Your task to perform on an android device: check out phone information Image 0: 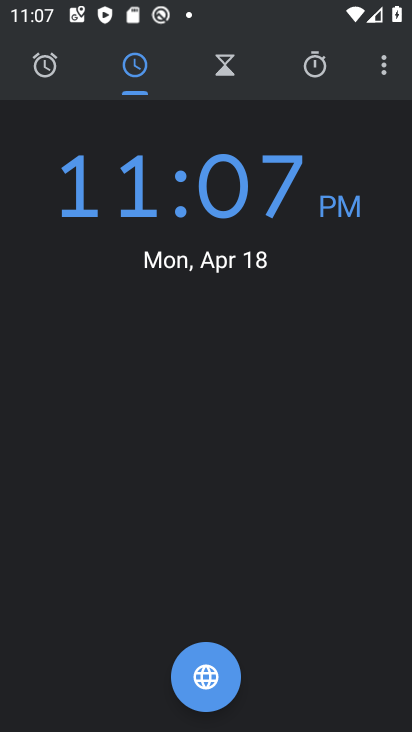
Step 0: press back button
Your task to perform on an android device: check out phone information Image 1: 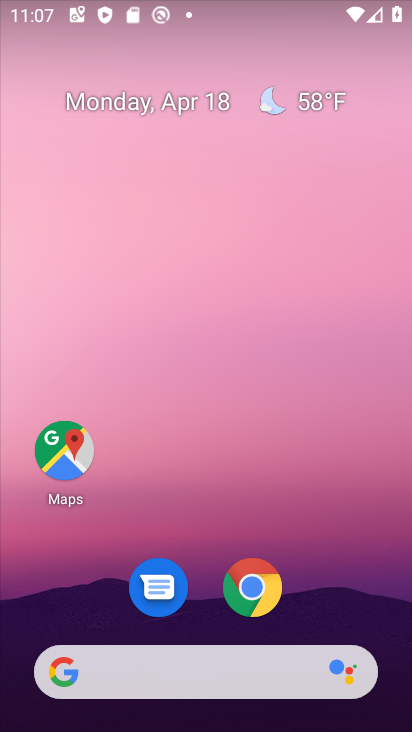
Step 1: drag from (177, 636) to (329, 90)
Your task to perform on an android device: check out phone information Image 2: 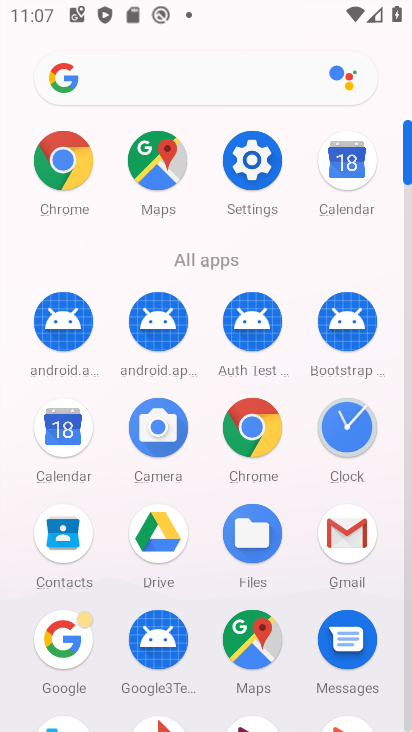
Step 2: drag from (172, 602) to (259, 273)
Your task to perform on an android device: check out phone information Image 3: 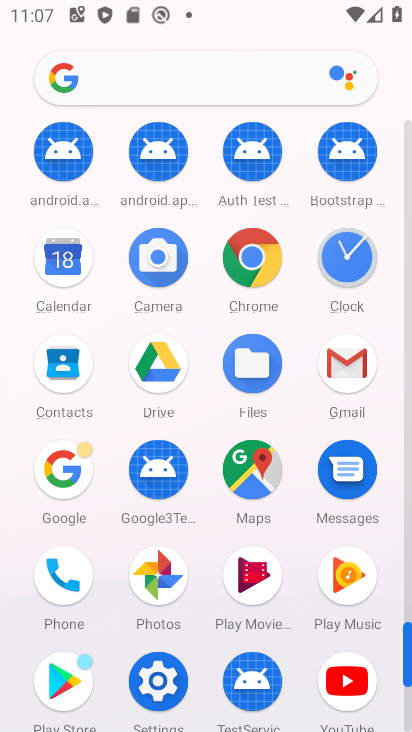
Step 3: click (161, 676)
Your task to perform on an android device: check out phone information Image 4: 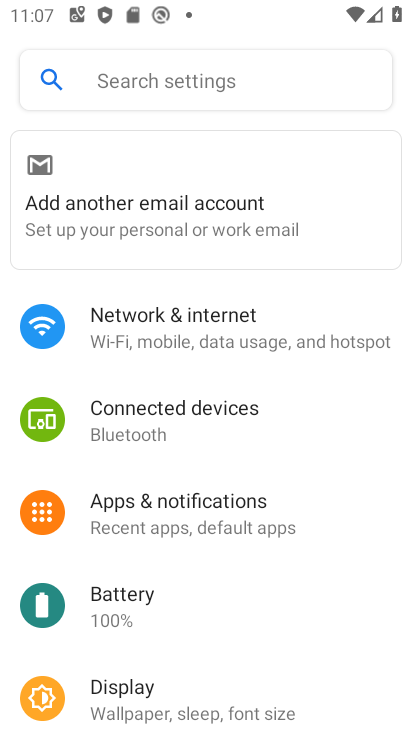
Step 4: drag from (231, 501) to (393, 73)
Your task to perform on an android device: check out phone information Image 5: 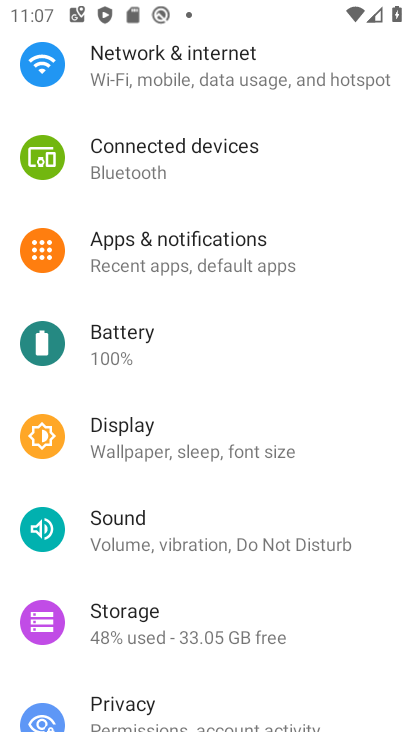
Step 5: drag from (234, 598) to (409, 94)
Your task to perform on an android device: check out phone information Image 6: 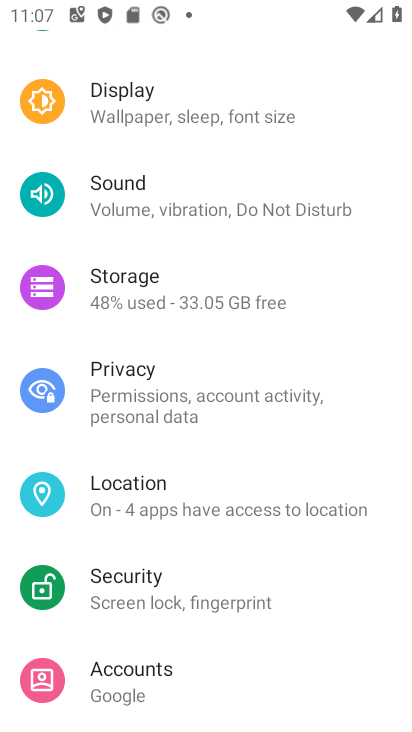
Step 6: drag from (248, 586) to (411, 53)
Your task to perform on an android device: check out phone information Image 7: 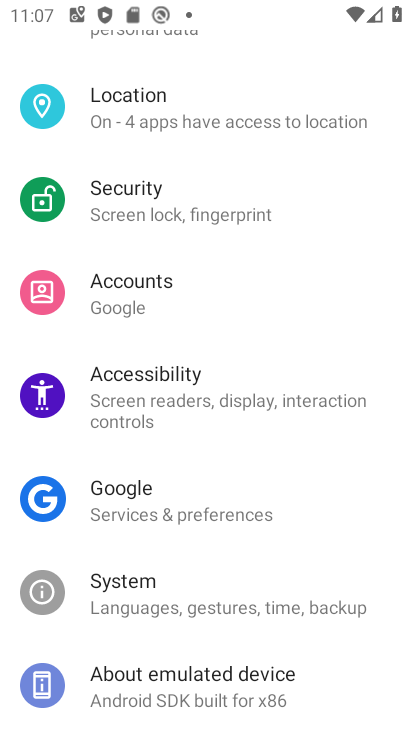
Step 7: drag from (203, 585) to (373, 146)
Your task to perform on an android device: check out phone information Image 8: 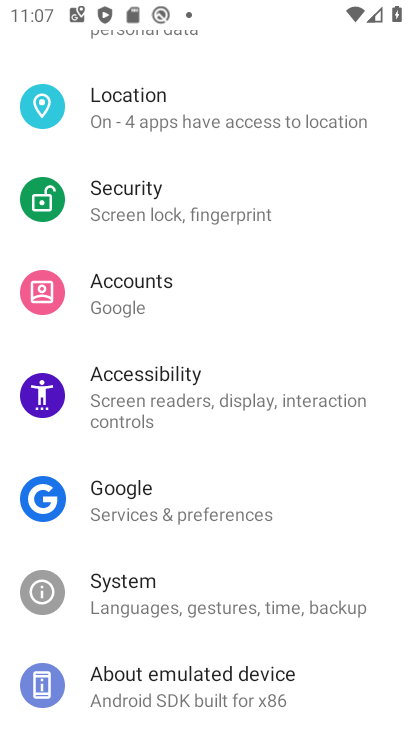
Step 8: click (228, 684)
Your task to perform on an android device: check out phone information Image 9: 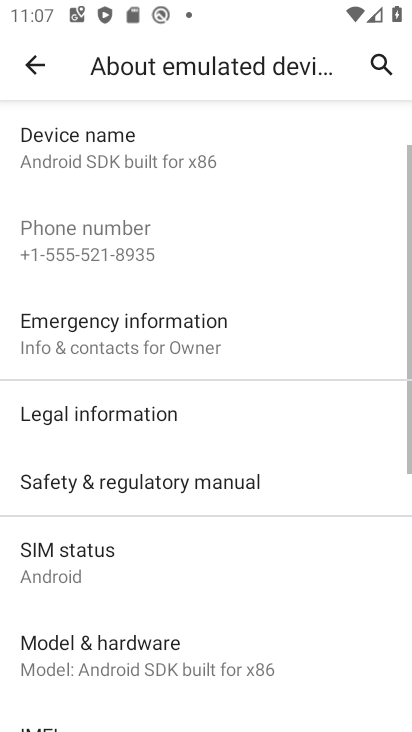
Step 9: task complete